Your task to perform on an android device: set default search engine in the chrome app Image 0: 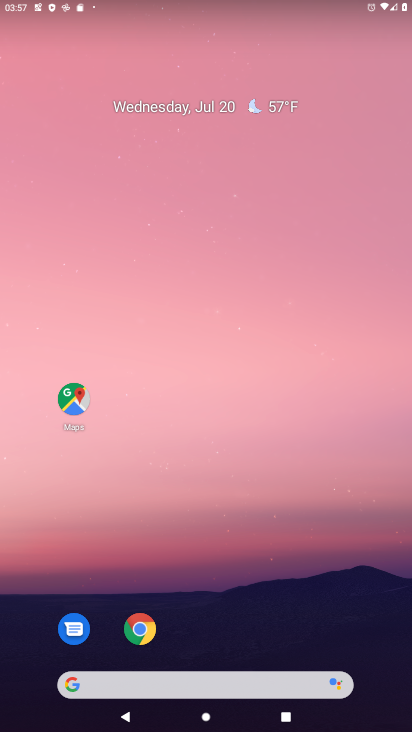
Step 0: click (138, 631)
Your task to perform on an android device: set default search engine in the chrome app Image 1: 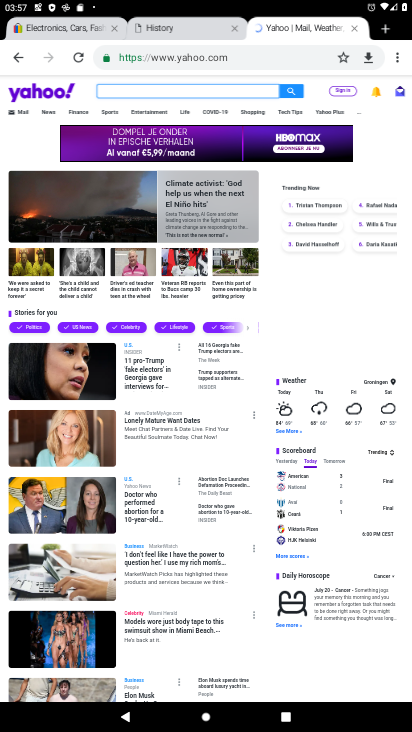
Step 1: click (398, 63)
Your task to perform on an android device: set default search engine in the chrome app Image 2: 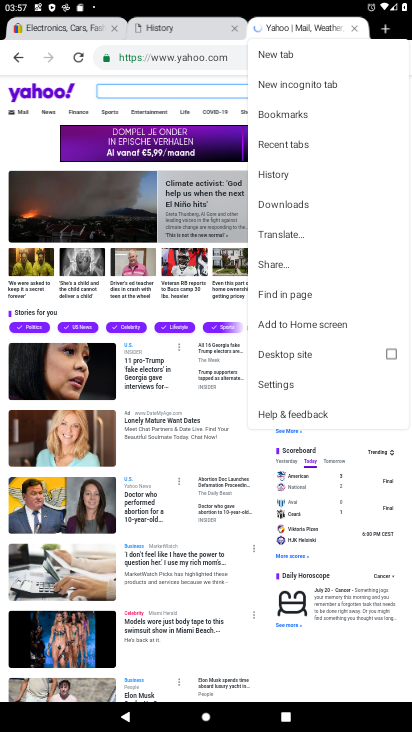
Step 2: click (283, 381)
Your task to perform on an android device: set default search engine in the chrome app Image 3: 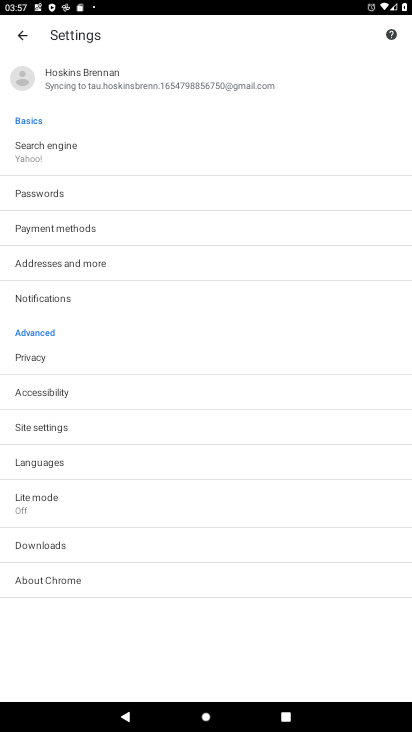
Step 3: click (29, 151)
Your task to perform on an android device: set default search engine in the chrome app Image 4: 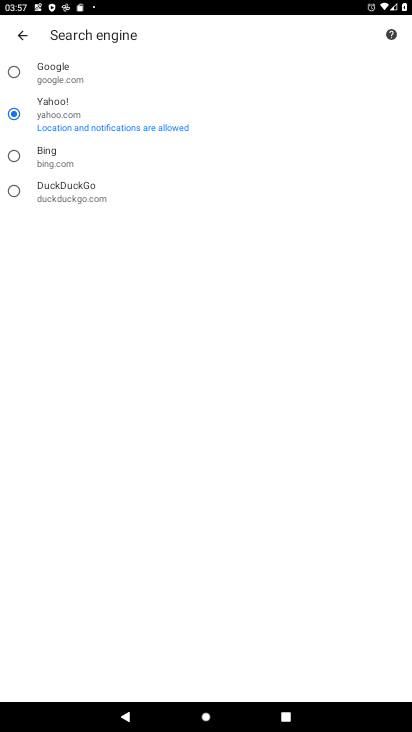
Step 4: click (11, 68)
Your task to perform on an android device: set default search engine in the chrome app Image 5: 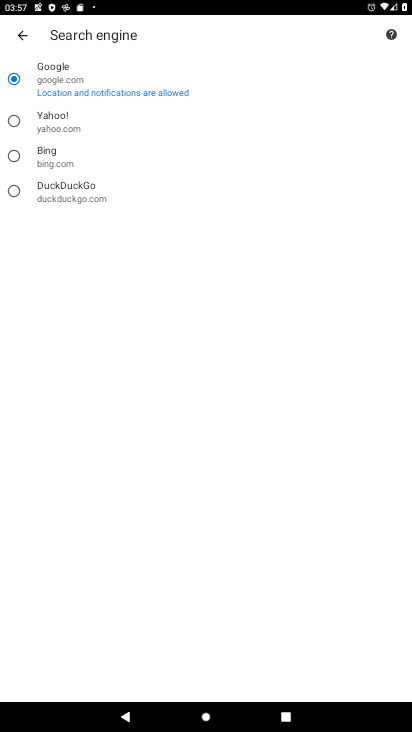
Step 5: task complete